Your task to perform on an android device: Show me popular videos on Youtube Image 0: 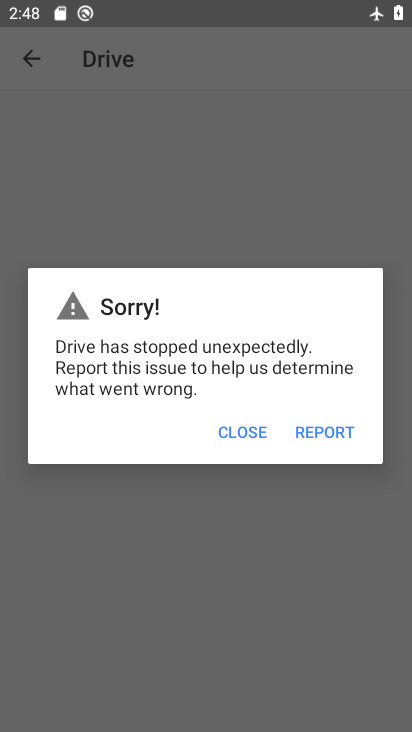
Step 0: press home button
Your task to perform on an android device: Show me popular videos on Youtube Image 1: 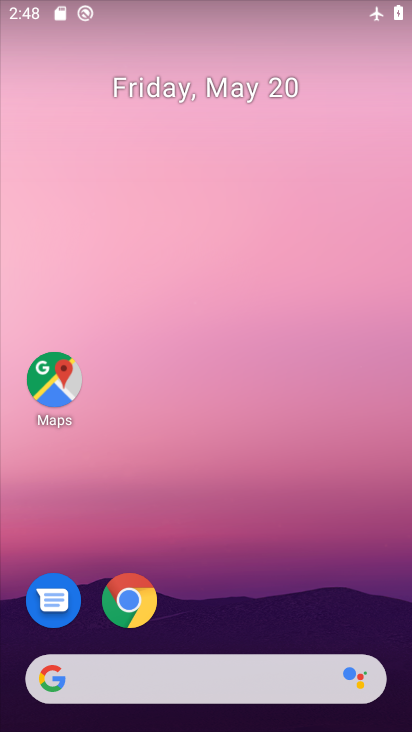
Step 1: drag from (288, 559) to (253, 8)
Your task to perform on an android device: Show me popular videos on Youtube Image 2: 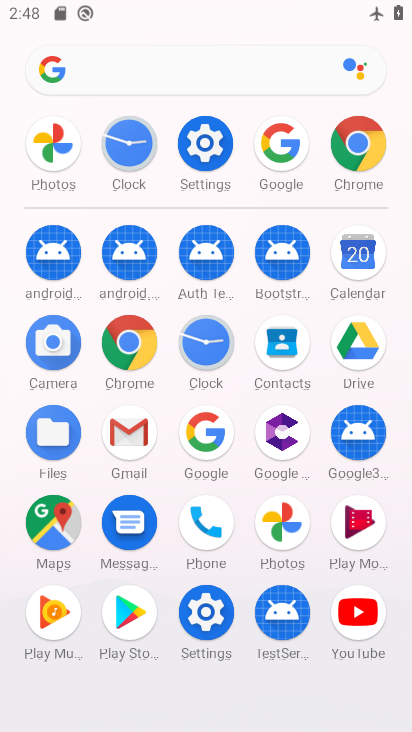
Step 2: click (366, 624)
Your task to perform on an android device: Show me popular videos on Youtube Image 3: 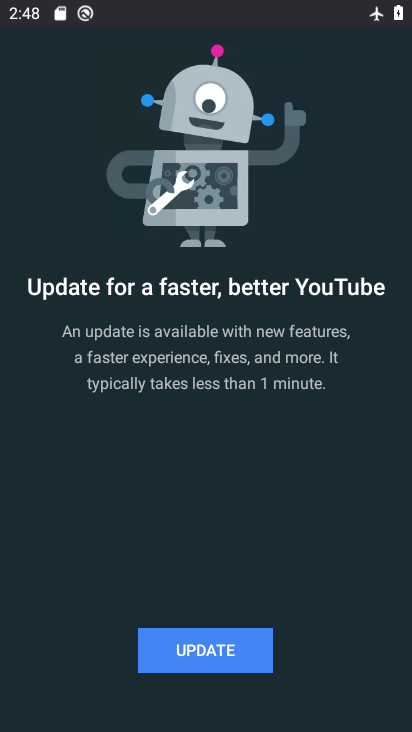
Step 3: press home button
Your task to perform on an android device: Show me popular videos on Youtube Image 4: 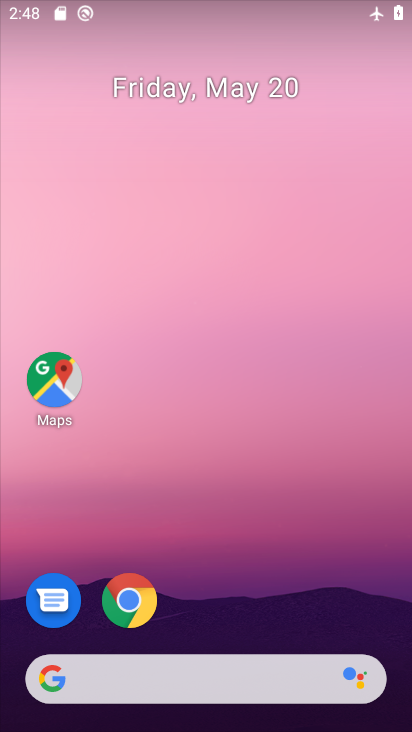
Step 4: drag from (256, 562) to (166, 35)
Your task to perform on an android device: Show me popular videos on Youtube Image 5: 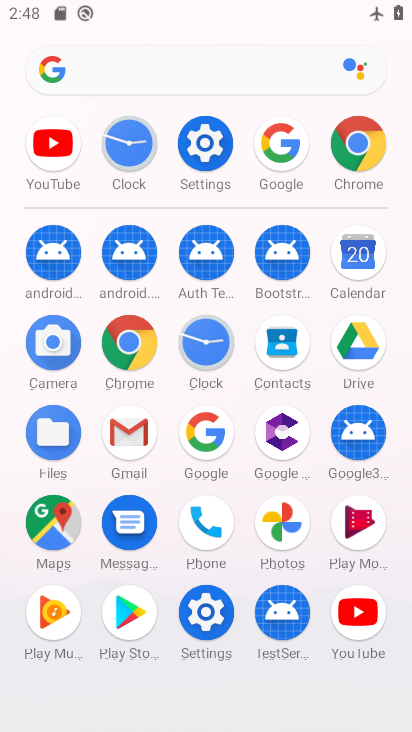
Step 5: click (367, 653)
Your task to perform on an android device: Show me popular videos on Youtube Image 6: 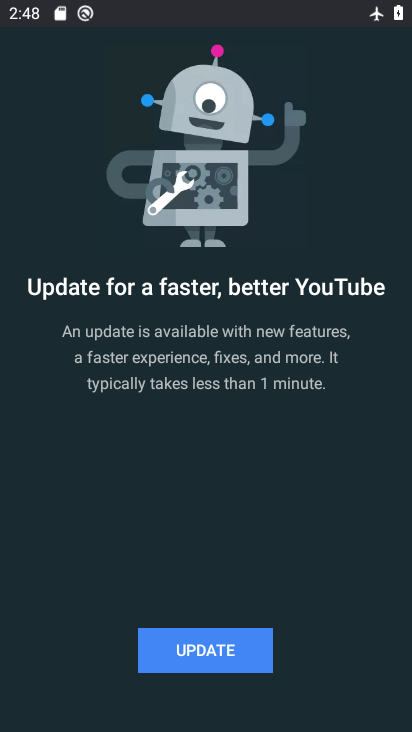
Step 6: click (230, 651)
Your task to perform on an android device: Show me popular videos on Youtube Image 7: 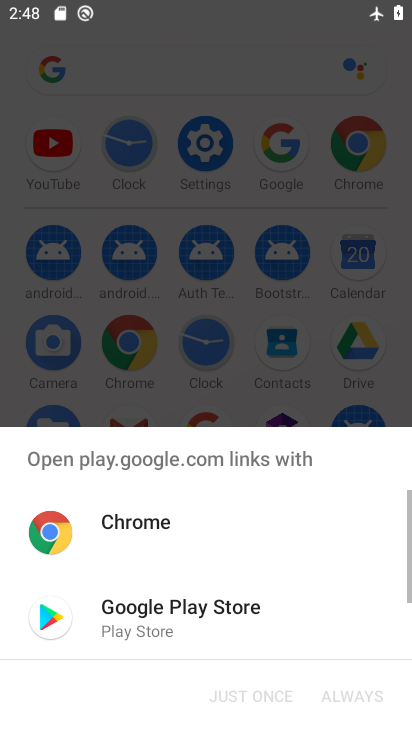
Step 7: click (175, 609)
Your task to perform on an android device: Show me popular videos on Youtube Image 8: 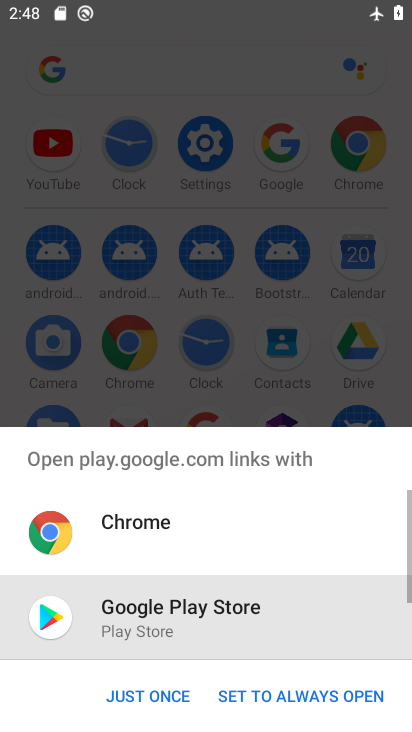
Step 8: click (156, 687)
Your task to perform on an android device: Show me popular videos on Youtube Image 9: 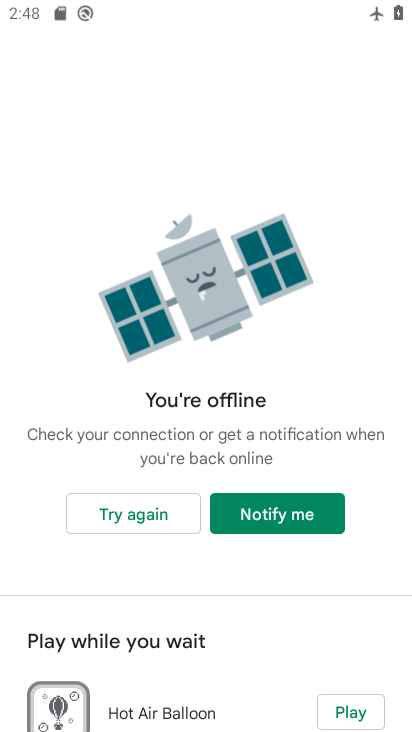
Step 9: click (161, 514)
Your task to perform on an android device: Show me popular videos on Youtube Image 10: 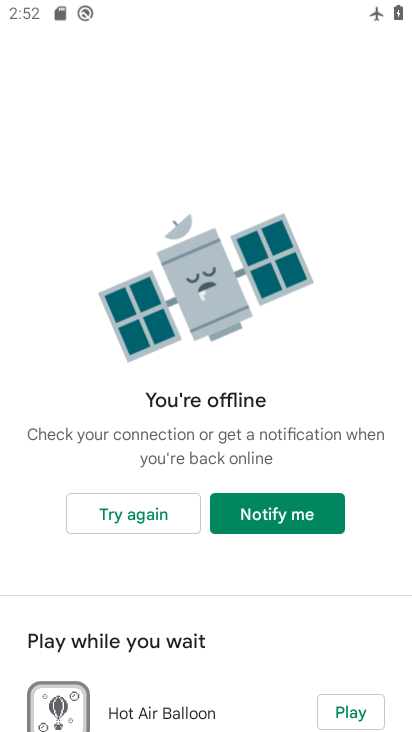
Step 10: task complete